Your task to perform on an android device: Open Reddit.com Image 0: 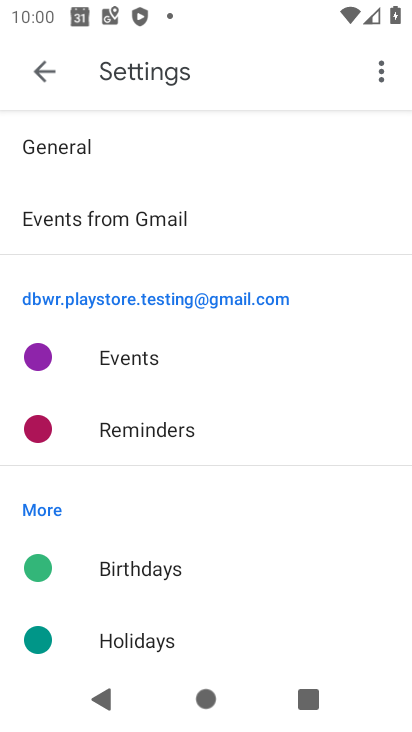
Step 0: press home button
Your task to perform on an android device: Open Reddit.com Image 1: 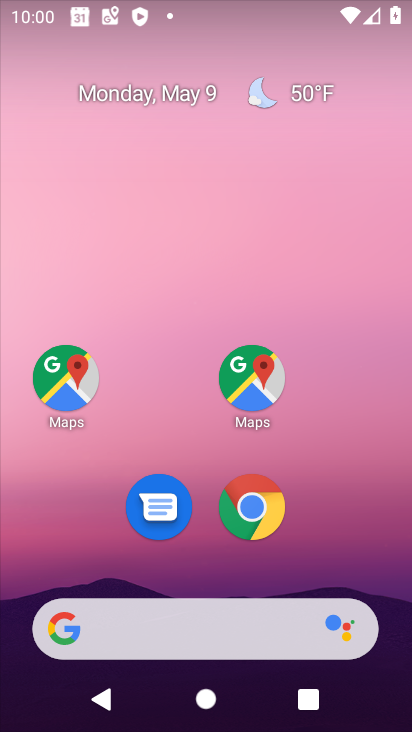
Step 1: click (244, 503)
Your task to perform on an android device: Open Reddit.com Image 2: 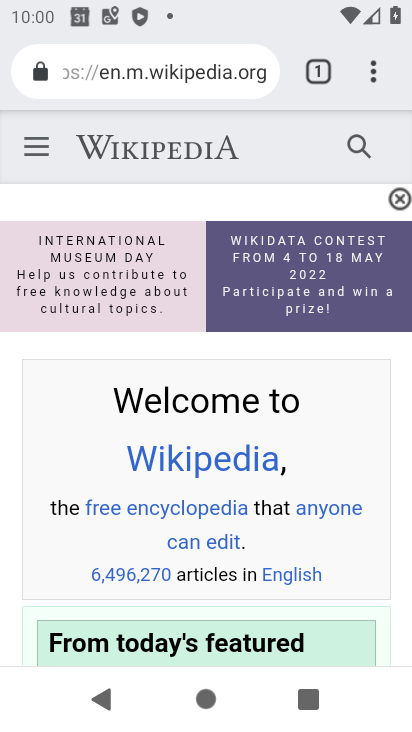
Step 2: click (308, 71)
Your task to perform on an android device: Open Reddit.com Image 3: 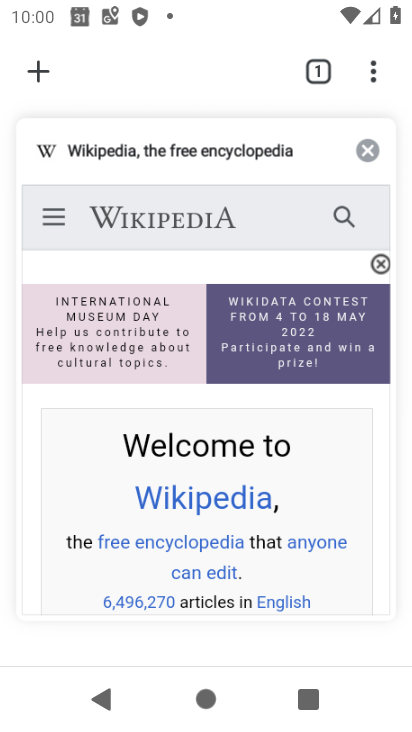
Step 3: click (152, 144)
Your task to perform on an android device: Open Reddit.com Image 4: 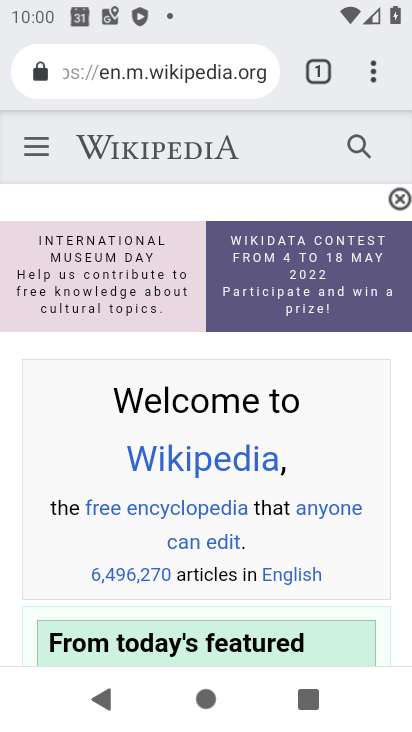
Step 4: click (182, 76)
Your task to perform on an android device: Open Reddit.com Image 5: 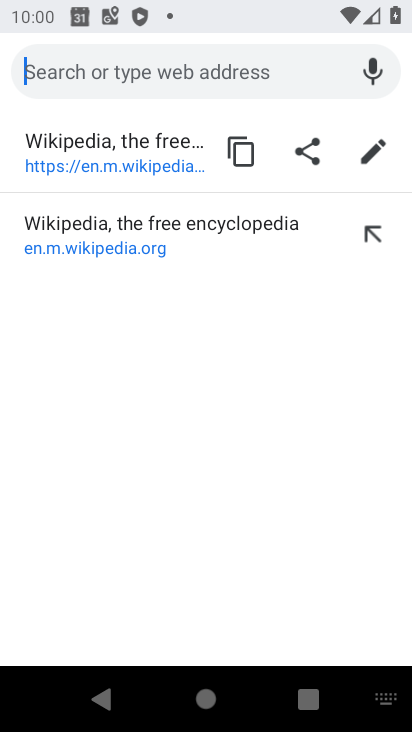
Step 5: type "reddit.com"
Your task to perform on an android device: Open Reddit.com Image 6: 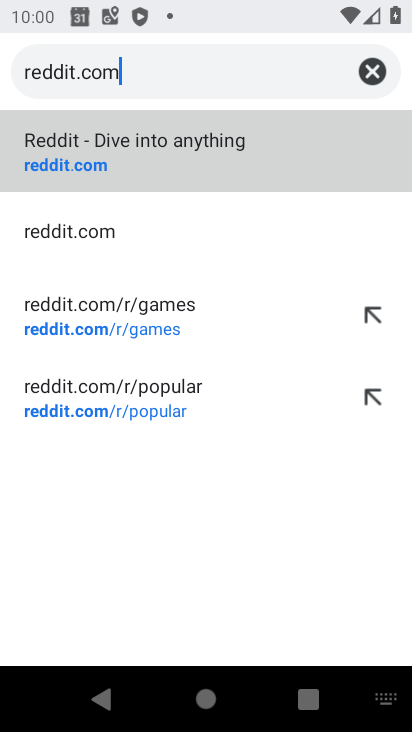
Step 6: click (151, 150)
Your task to perform on an android device: Open Reddit.com Image 7: 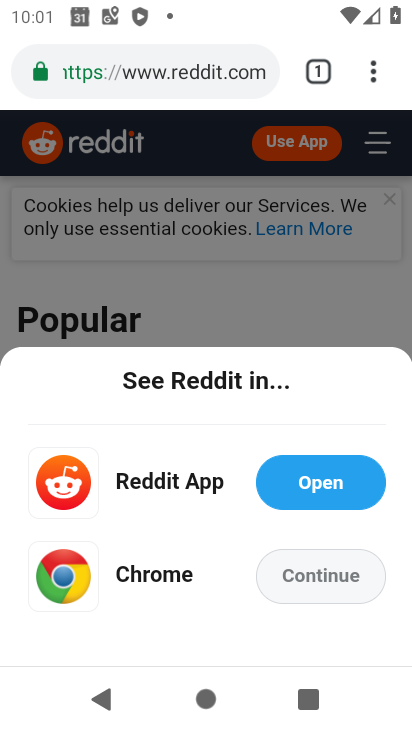
Step 7: click (285, 586)
Your task to perform on an android device: Open Reddit.com Image 8: 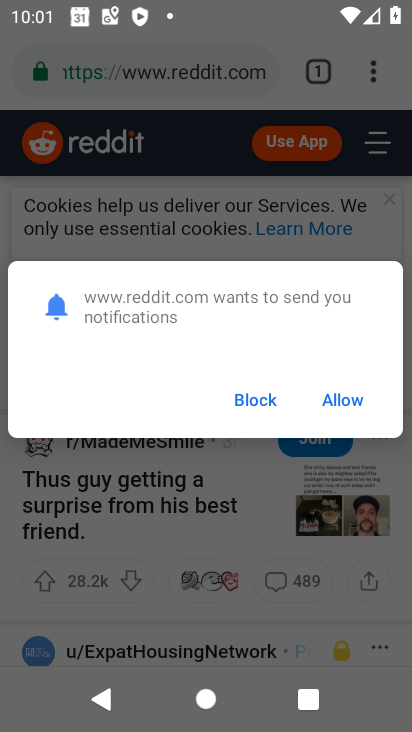
Step 8: click (346, 394)
Your task to perform on an android device: Open Reddit.com Image 9: 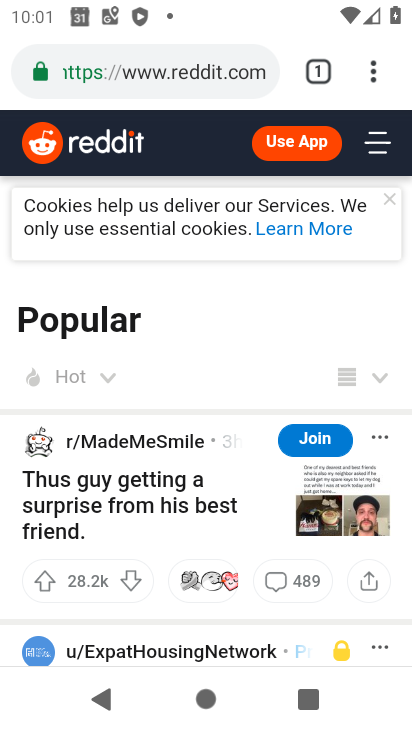
Step 9: task complete